Your task to perform on an android device: Show me the alarms in the clock app Image 0: 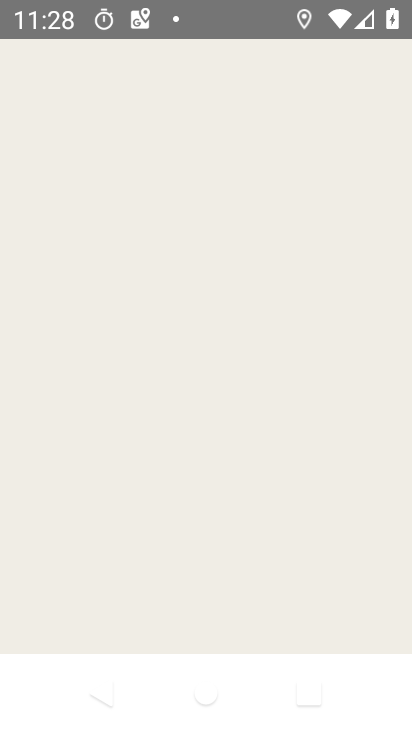
Step 0: press home button
Your task to perform on an android device: Show me the alarms in the clock app Image 1: 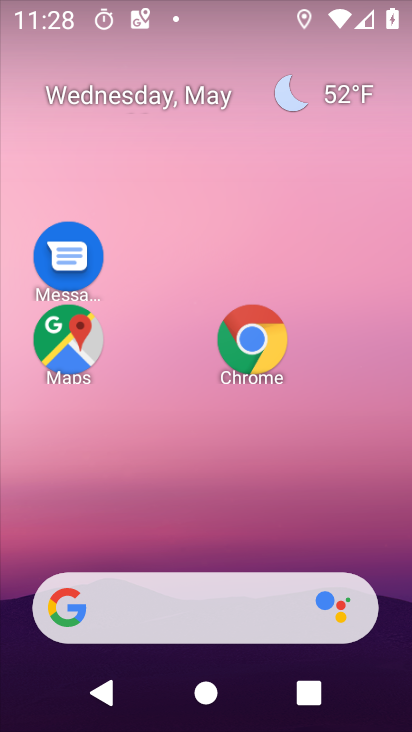
Step 1: drag from (264, 553) to (208, 106)
Your task to perform on an android device: Show me the alarms in the clock app Image 2: 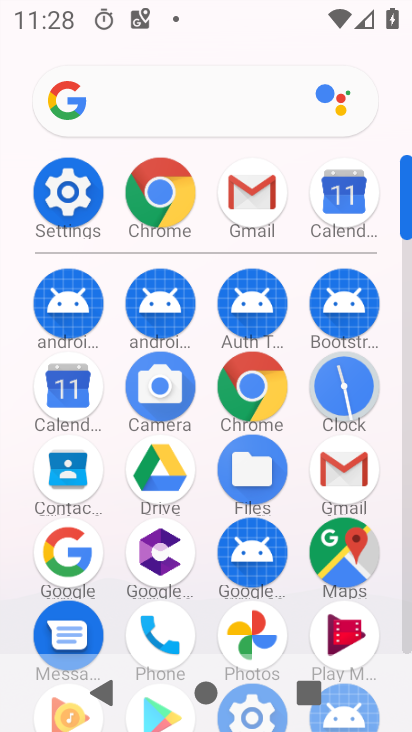
Step 2: click (345, 390)
Your task to perform on an android device: Show me the alarms in the clock app Image 3: 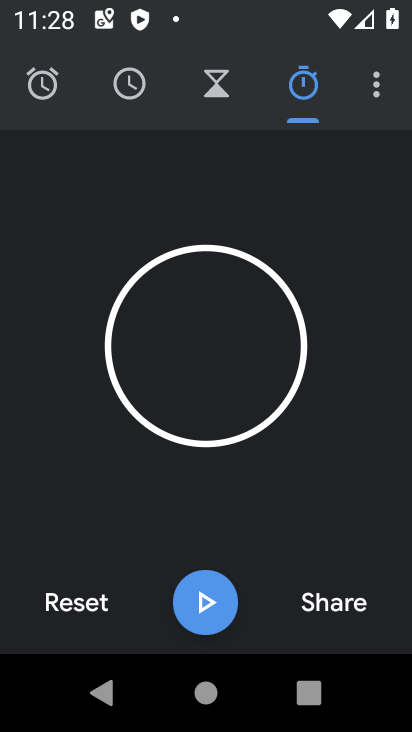
Step 3: click (34, 84)
Your task to perform on an android device: Show me the alarms in the clock app Image 4: 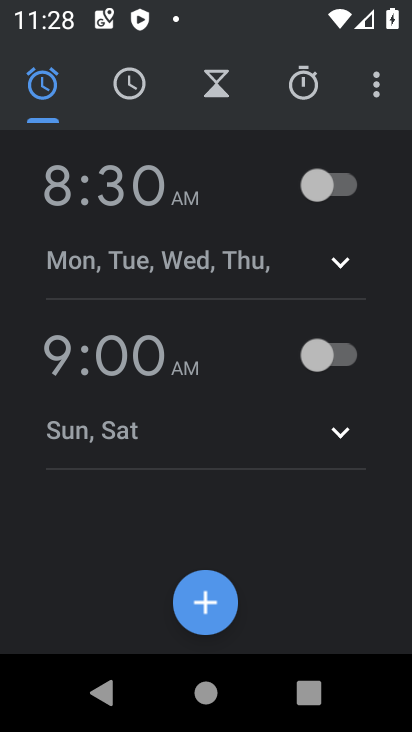
Step 4: click (317, 191)
Your task to perform on an android device: Show me the alarms in the clock app Image 5: 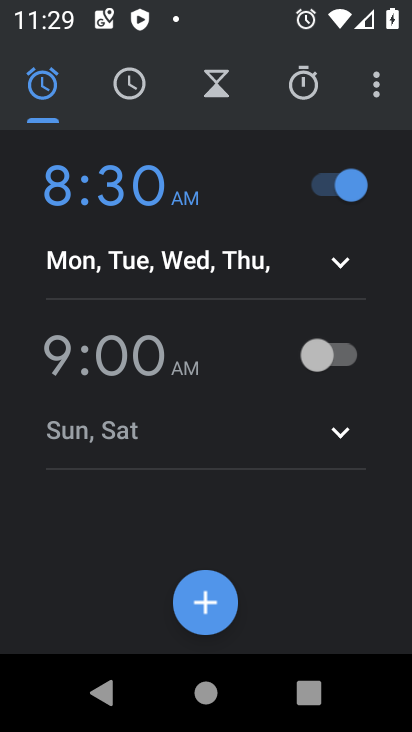
Step 5: task complete